Your task to perform on an android device: change the upload size in google photos Image 0: 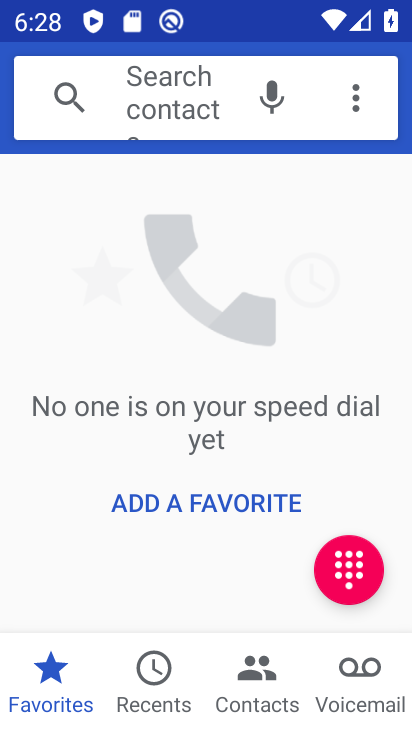
Step 0: press home button
Your task to perform on an android device: change the upload size in google photos Image 1: 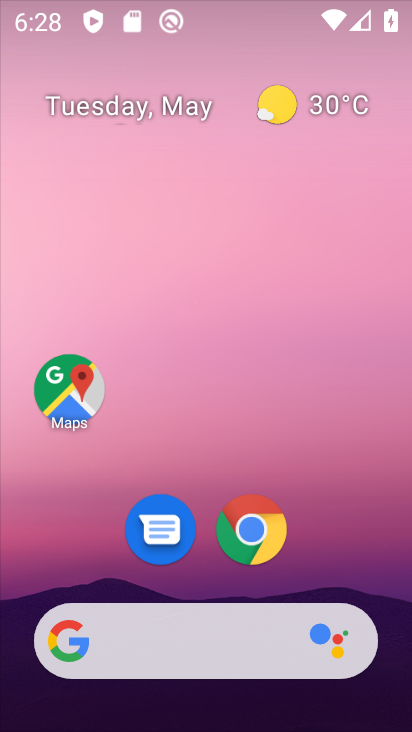
Step 1: drag from (390, 625) to (280, 35)
Your task to perform on an android device: change the upload size in google photos Image 2: 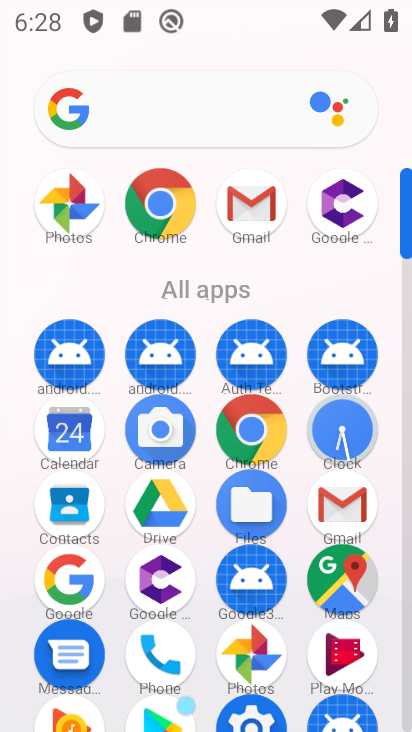
Step 2: click (260, 650)
Your task to perform on an android device: change the upload size in google photos Image 3: 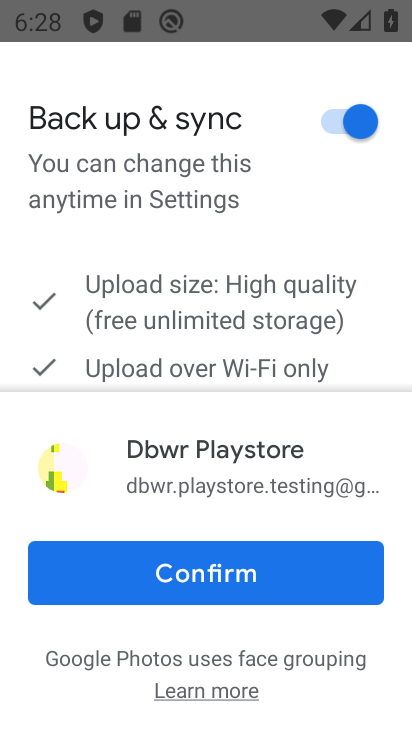
Step 3: click (253, 566)
Your task to perform on an android device: change the upload size in google photos Image 4: 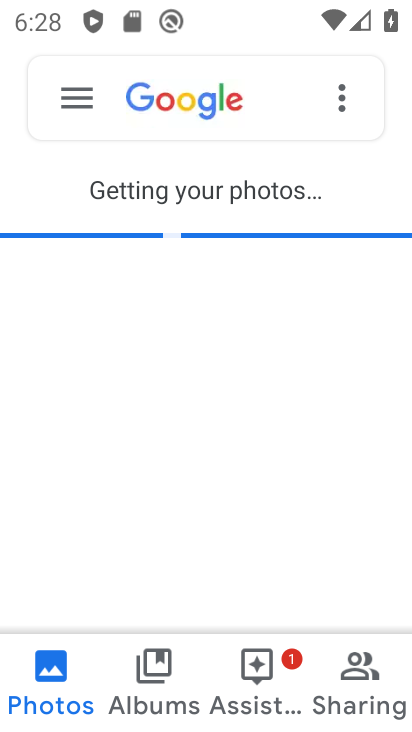
Step 4: click (68, 83)
Your task to perform on an android device: change the upload size in google photos Image 5: 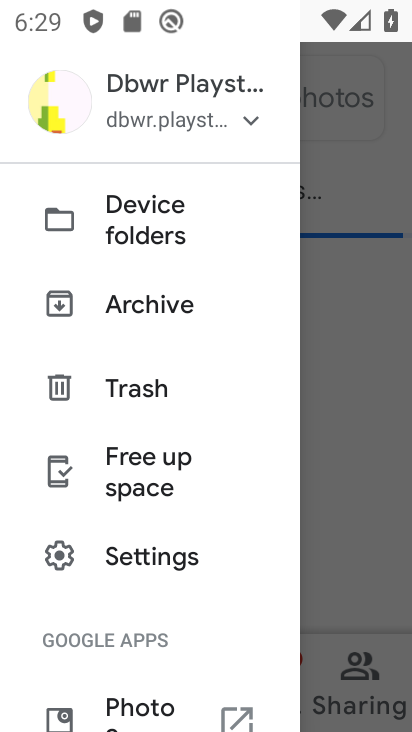
Step 5: click (163, 552)
Your task to perform on an android device: change the upload size in google photos Image 6: 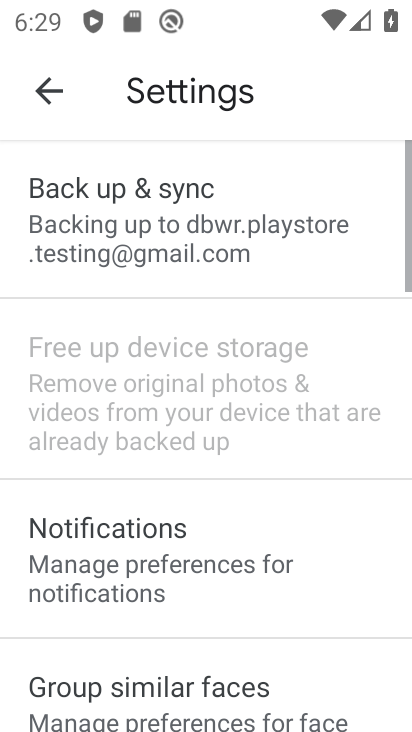
Step 6: click (161, 231)
Your task to perform on an android device: change the upload size in google photos Image 7: 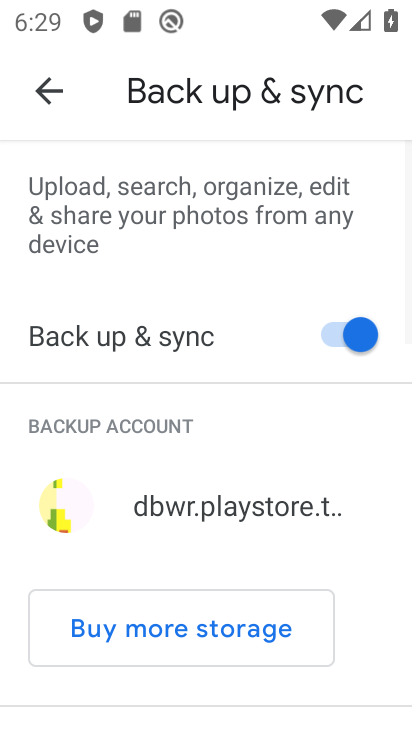
Step 7: drag from (234, 561) to (207, 96)
Your task to perform on an android device: change the upload size in google photos Image 8: 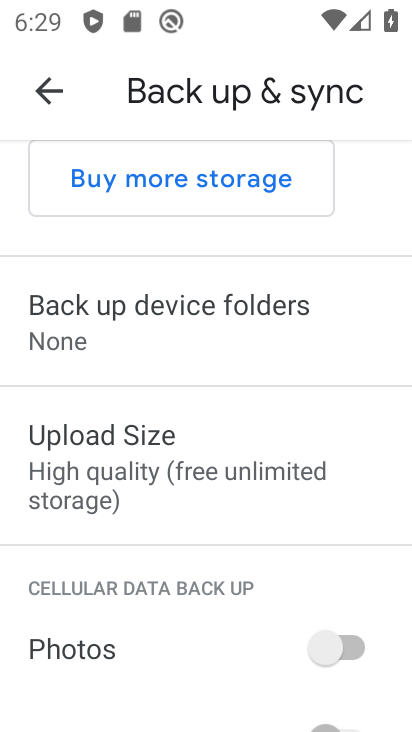
Step 8: click (183, 527)
Your task to perform on an android device: change the upload size in google photos Image 9: 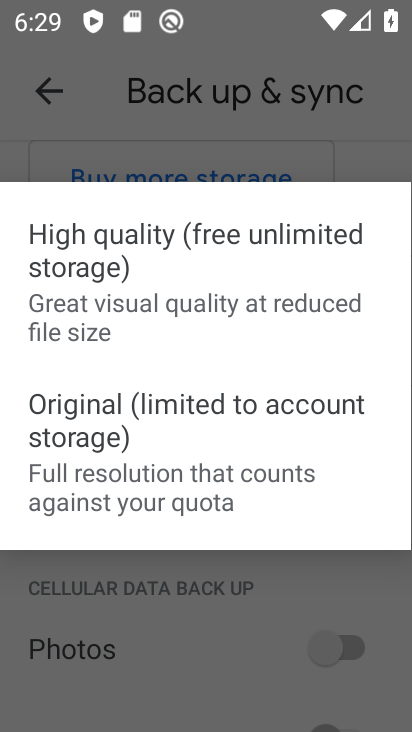
Step 9: click (165, 476)
Your task to perform on an android device: change the upload size in google photos Image 10: 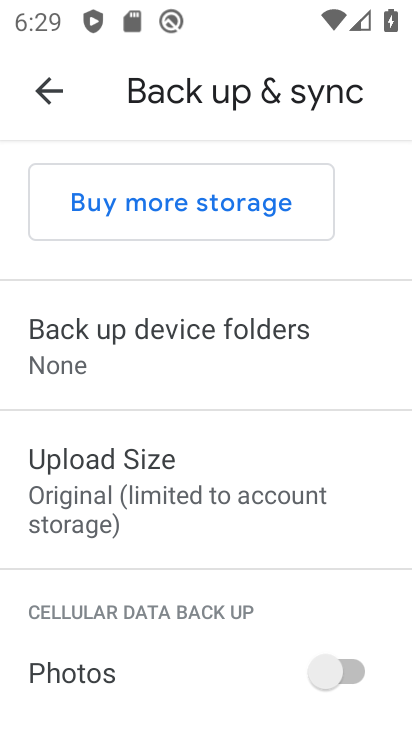
Step 10: task complete